Your task to perform on an android device: What's the weather going to be this weekend? Image 0: 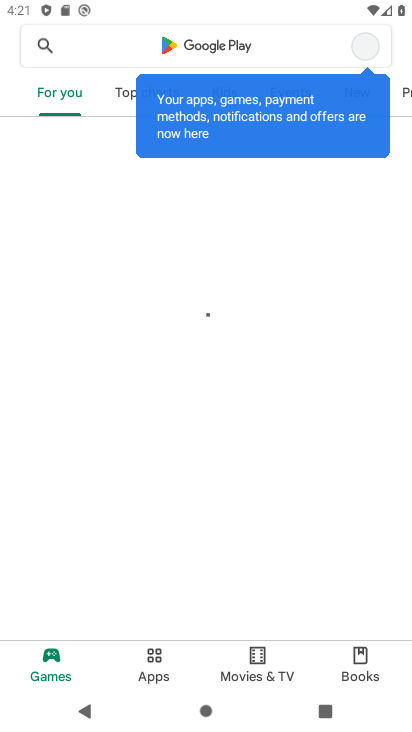
Step 0: press home button
Your task to perform on an android device: What's the weather going to be this weekend? Image 1: 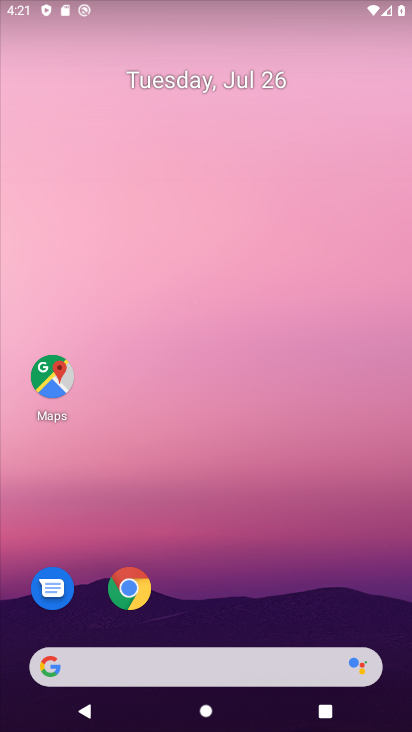
Step 1: drag from (213, 574) to (305, 4)
Your task to perform on an android device: What's the weather going to be this weekend? Image 2: 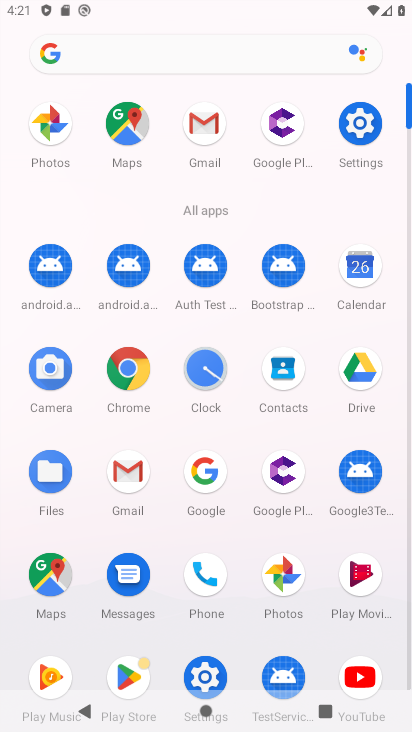
Step 2: click (203, 483)
Your task to perform on an android device: What's the weather going to be this weekend? Image 3: 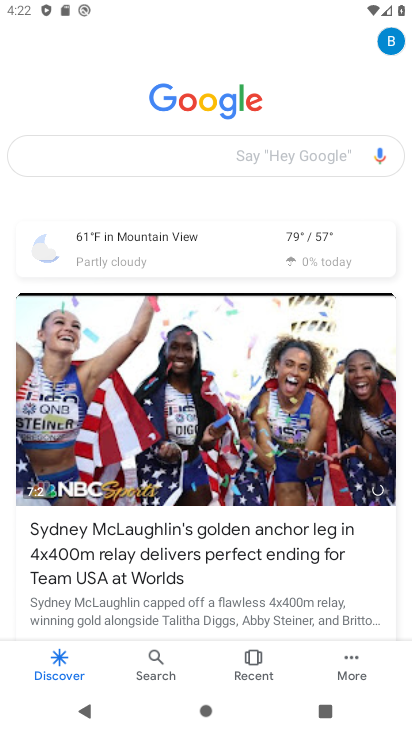
Step 3: click (166, 261)
Your task to perform on an android device: What's the weather going to be this weekend? Image 4: 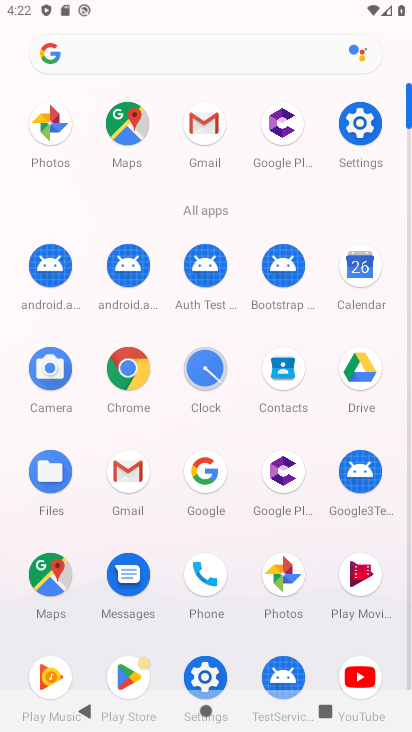
Step 4: click (223, 470)
Your task to perform on an android device: What's the weather going to be this weekend? Image 5: 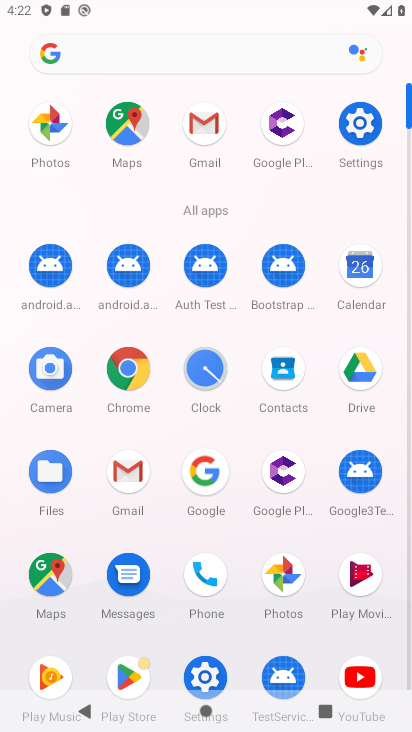
Step 5: click (211, 469)
Your task to perform on an android device: What's the weather going to be this weekend? Image 6: 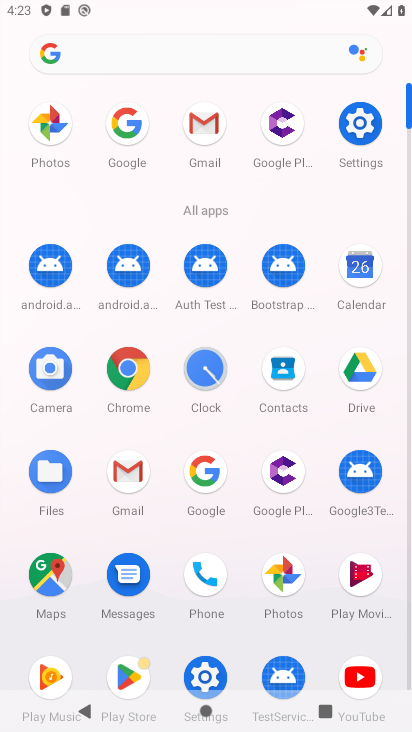
Step 6: click (196, 477)
Your task to perform on an android device: What's the weather going to be this weekend? Image 7: 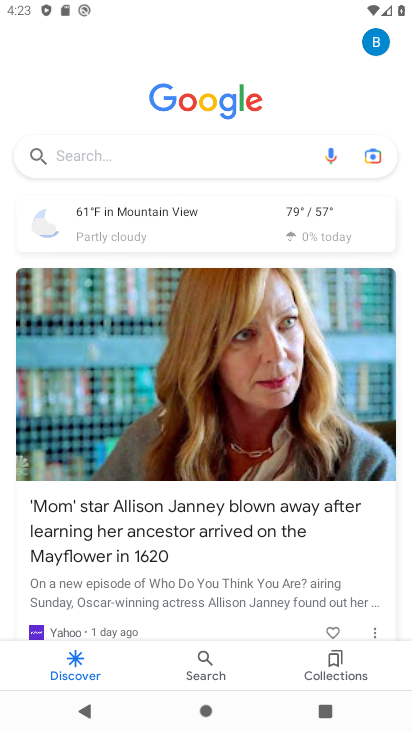
Step 7: click (211, 236)
Your task to perform on an android device: What's the weather going to be this weekend? Image 8: 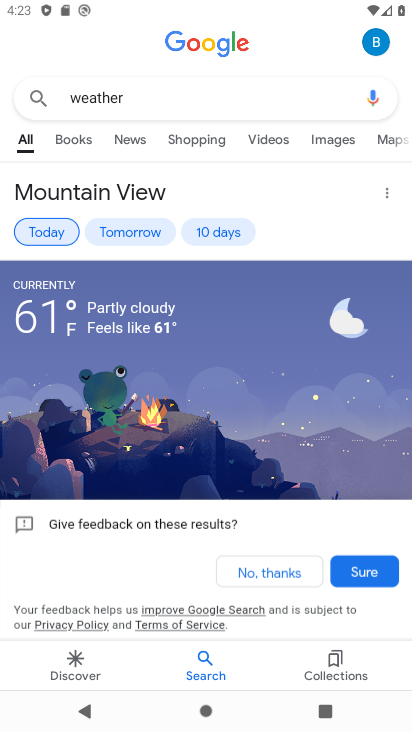
Step 8: task complete